Your task to perform on an android device: check the backup settings in the google photos Image 0: 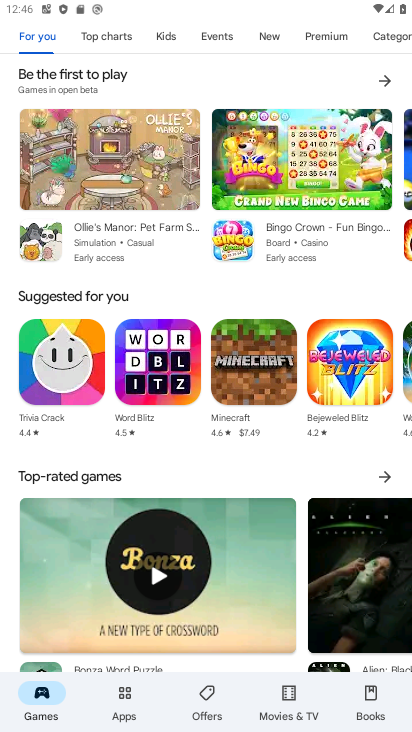
Step 0: press home button
Your task to perform on an android device: check the backup settings in the google photos Image 1: 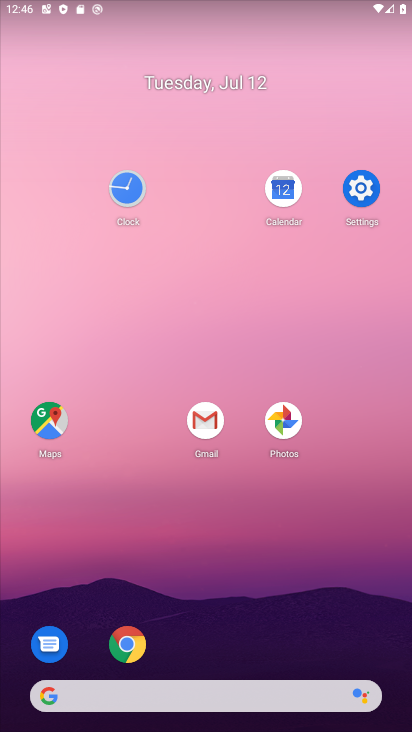
Step 1: click (278, 423)
Your task to perform on an android device: check the backup settings in the google photos Image 2: 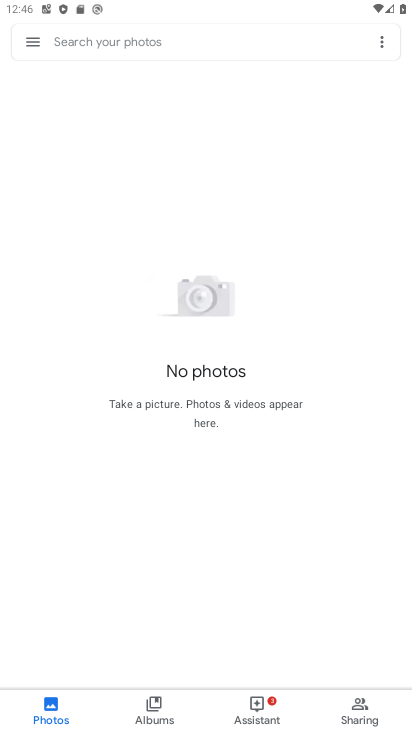
Step 2: click (28, 46)
Your task to perform on an android device: check the backup settings in the google photos Image 3: 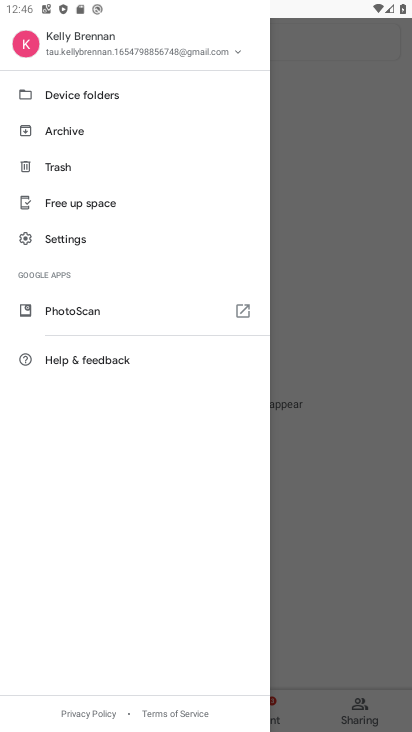
Step 3: click (90, 232)
Your task to perform on an android device: check the backup settings in the google photos Image 4: 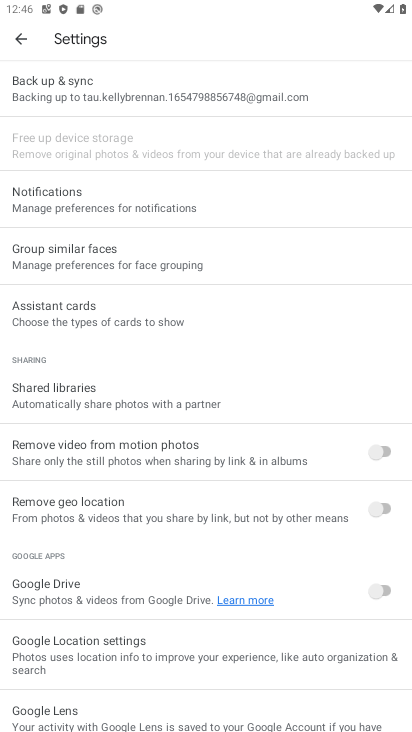
Step 4: drag from (155, 453) to (148, 158)
Your task to perform on an android device: check the backup settings in the google photos Image 5: 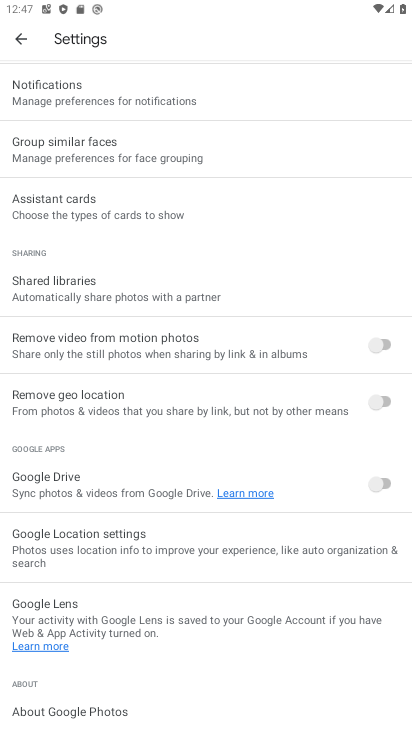
Step 5: drag from (152, 156) to (177, 461)
Your task to perform on an android device: check the backup settings in the google photos Image 6: 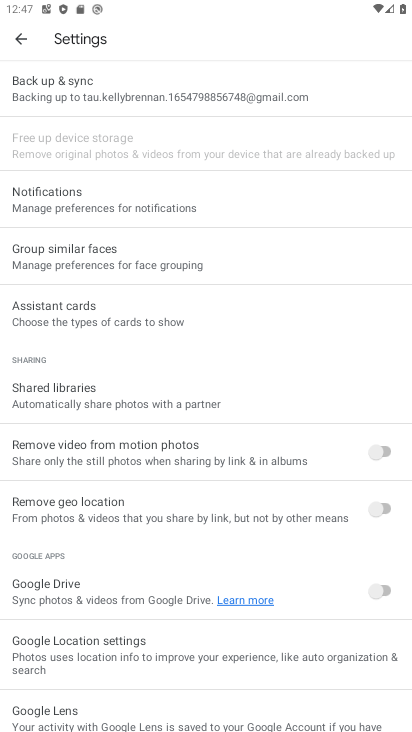
Step 6: click (165, 81)
Your task to perform on an android device: check the backup settings in the google photos Image 7: 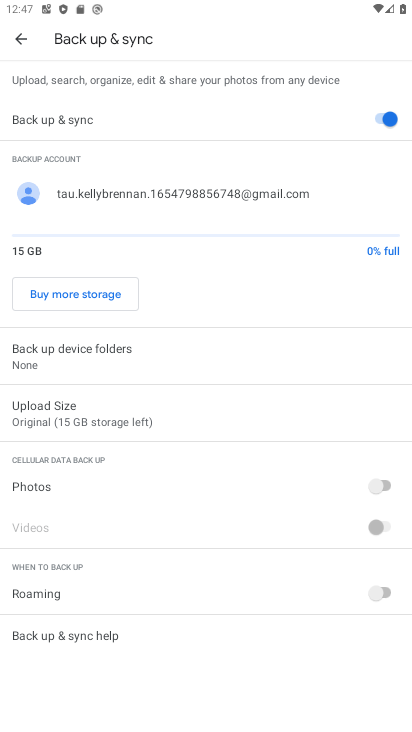
Step 7: click (188, 409)
Your task to perform on an android device: check the backup settings in the google photos Image 8: 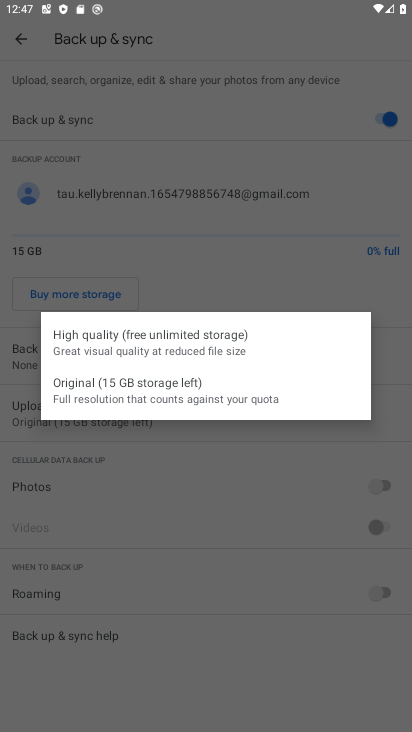
Step 8: click (195, 397)
Your task to perform on an android device: check the backup settings in the google photos Image 9: 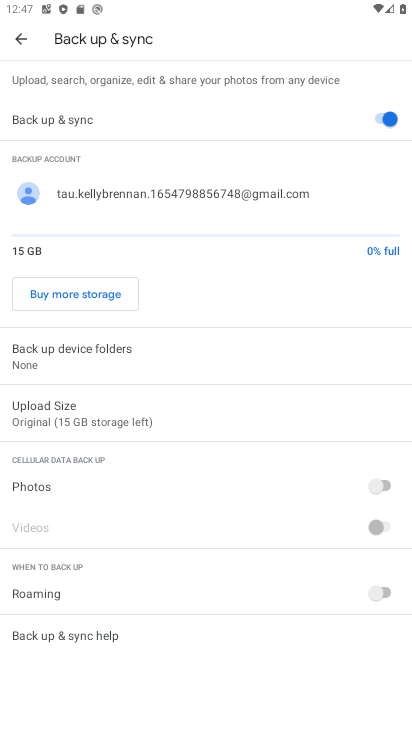
Step 9: click (252, 410)
Your task to perform on an android device: check the backup settings in the google photos Image 10: 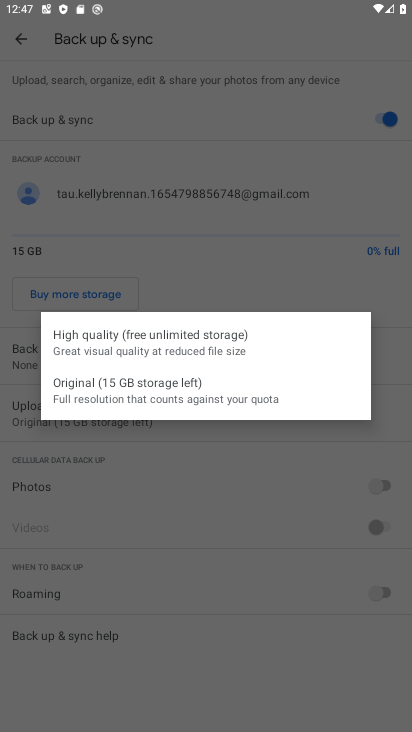
Step 10: click (258, 349)
Your task to perform on an android device: check the backup settings in the google photos Image 11: 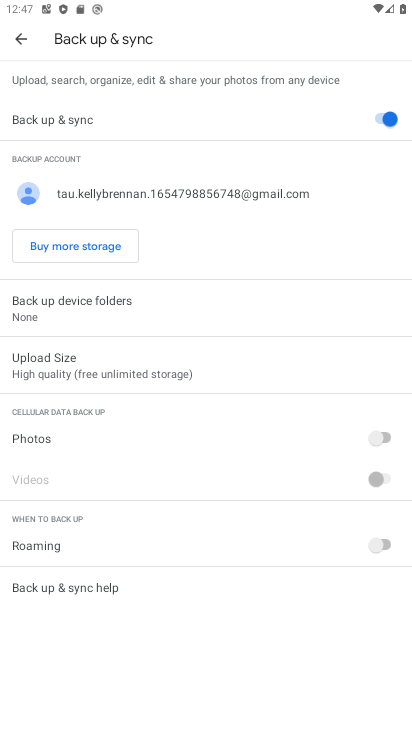
Step 11: task complete